Your task to perform on an android device: star an email in the gmail app Image 0: 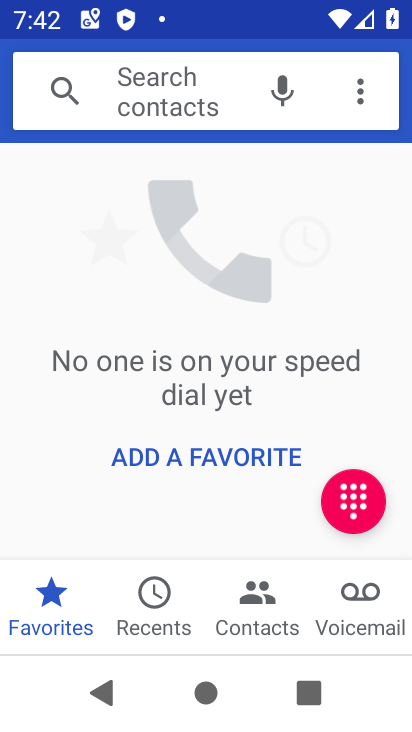
Step 0: press home button
Your task to perform on an android device: star an email in the gmail app Image 1: 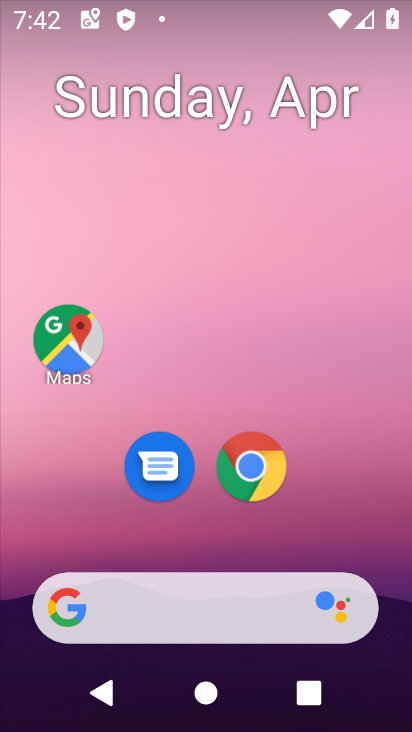
Step 1: drag from (198, 549) to (216, 0)
Your task to perform on an android device: star an email in the gmail app Image 2: 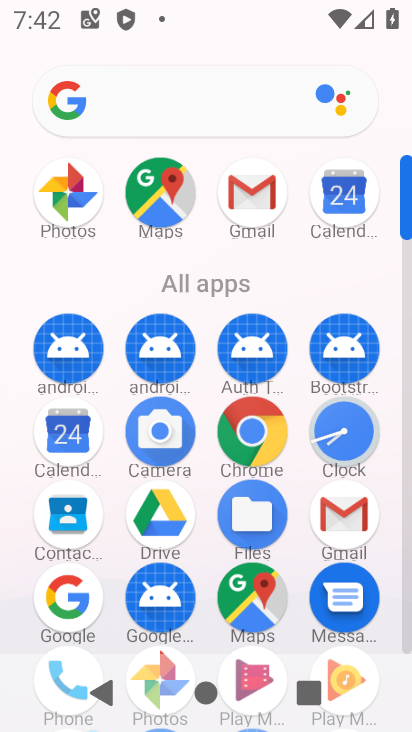
Step 2: click (358, 515)
Your task to perform on an android device: star an email in the gmail app Image 3: 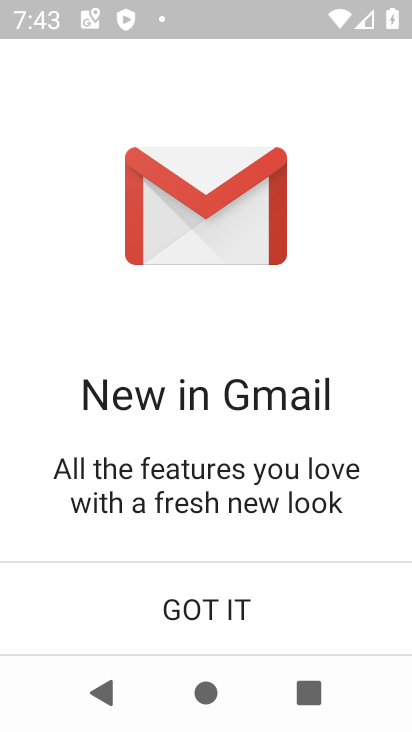
Step 3: click (274, 628)
Your task to perform on an android device: star an email in the gmail app Image 4: 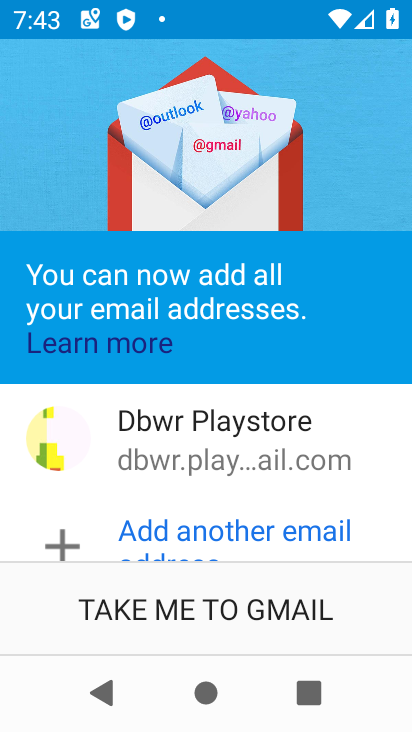
Step 4: click (268, 623)
Your task to perform on an android device: star an email in the gmail app Image 5: 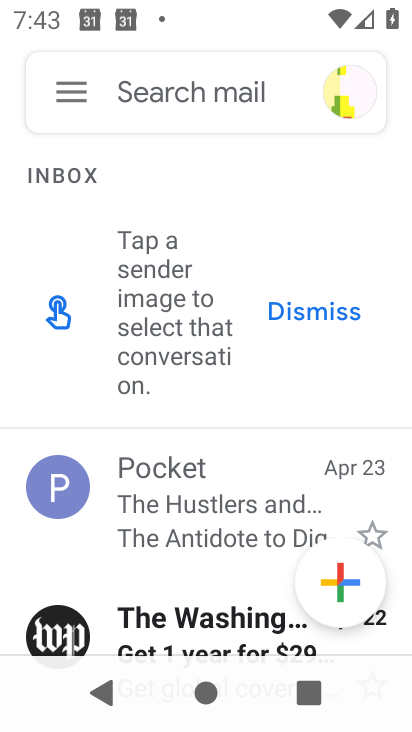
Step 5: click (367, 528)
Your task to perform on an android device: star an email in the gmail app Image 6: 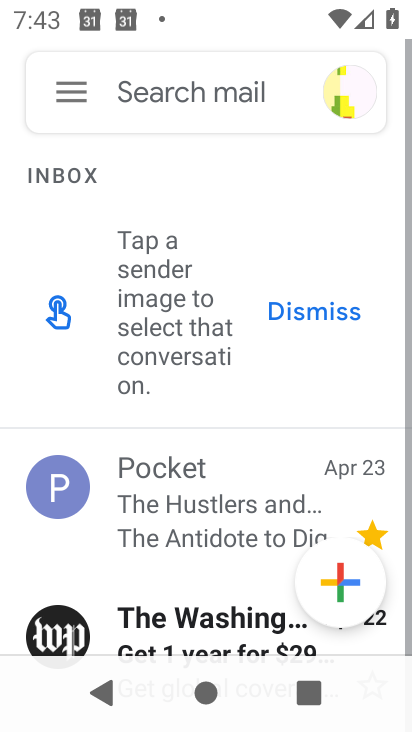
Step 6: task complete